Your task to perform on an android device: Go to battery settings Image 0: 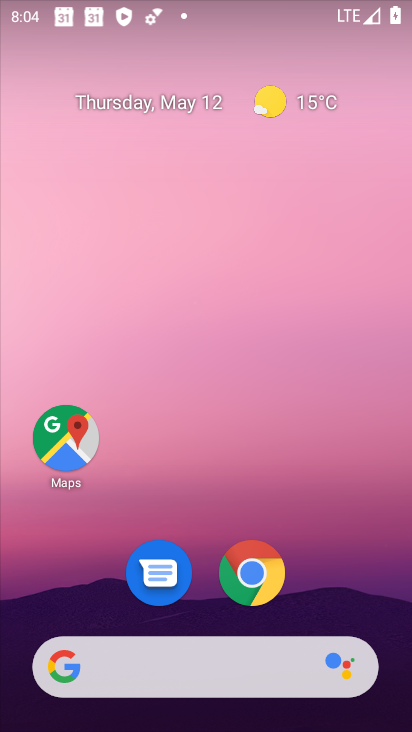
Step 0: drag from (287, 523) to (228, 136)
Your task to perform on an android device: Go to battery settings Image 1: 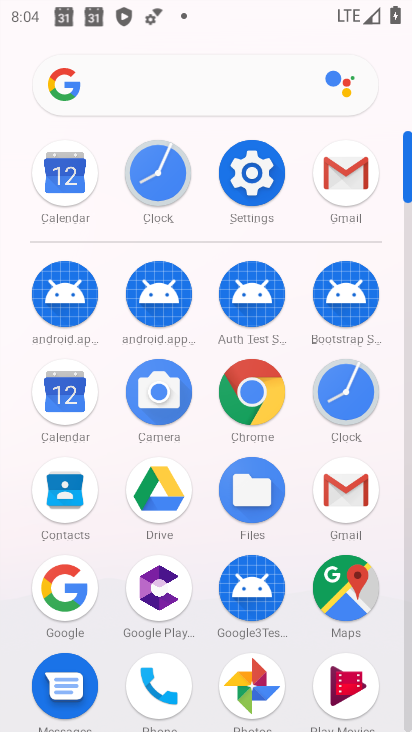
Step 1: click (257, 168)
Your task to perform on an android device: Go to battery settings Image 2: 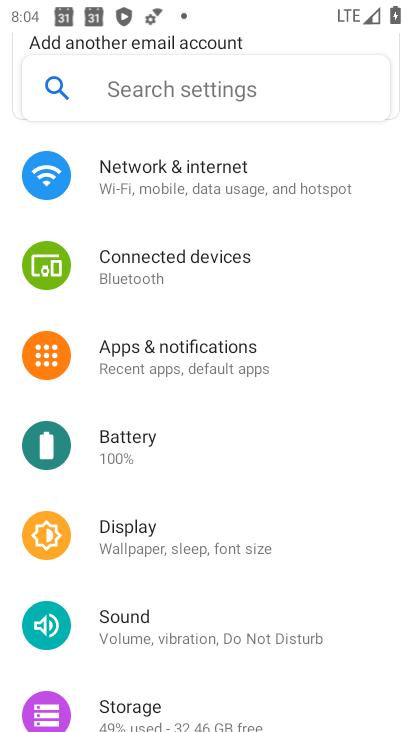
Step 2: click (127, 436)
Your task to perform on an android device: Go to battery settings Image 3: 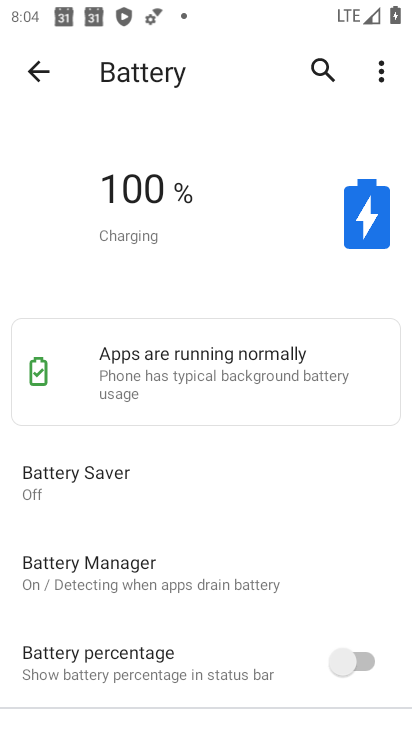
Step 3: task complete